Your task to perform on an android device: Look up the best rated gaming chairs on Target. Image 0: 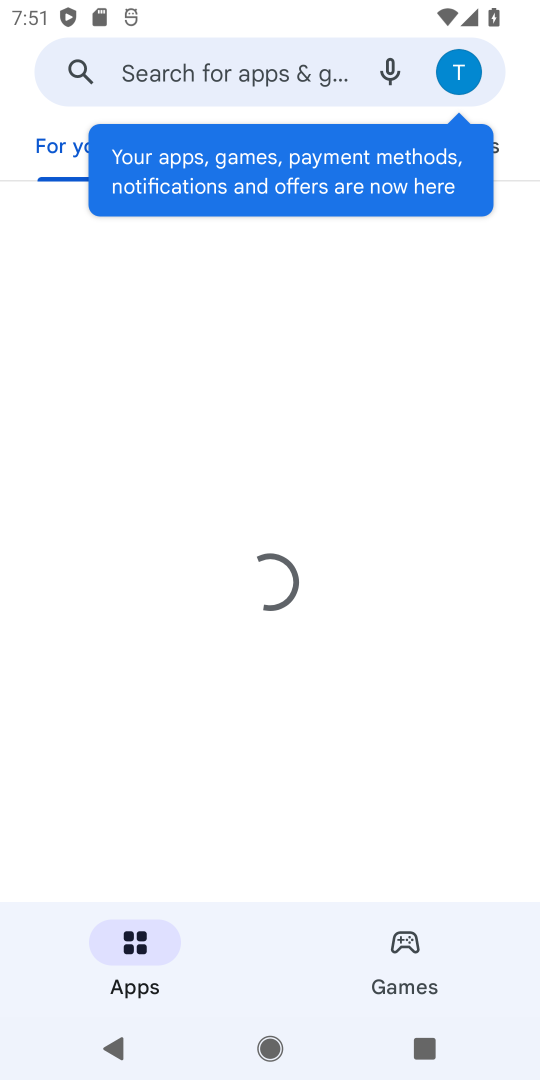
Step 0: press home button
Your task to perform on an android device: Look up the best rated gaming chairs on Target. Image 1: 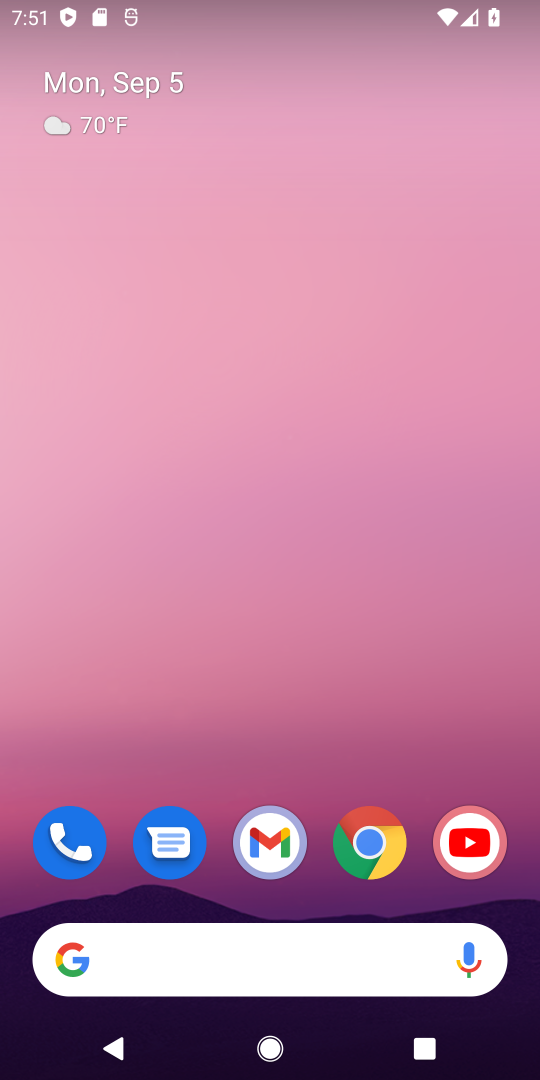
Step 1: click (369, 841)
Your task to perform on an android device: Look up the best rated gaming chairs on Target. Image 2: 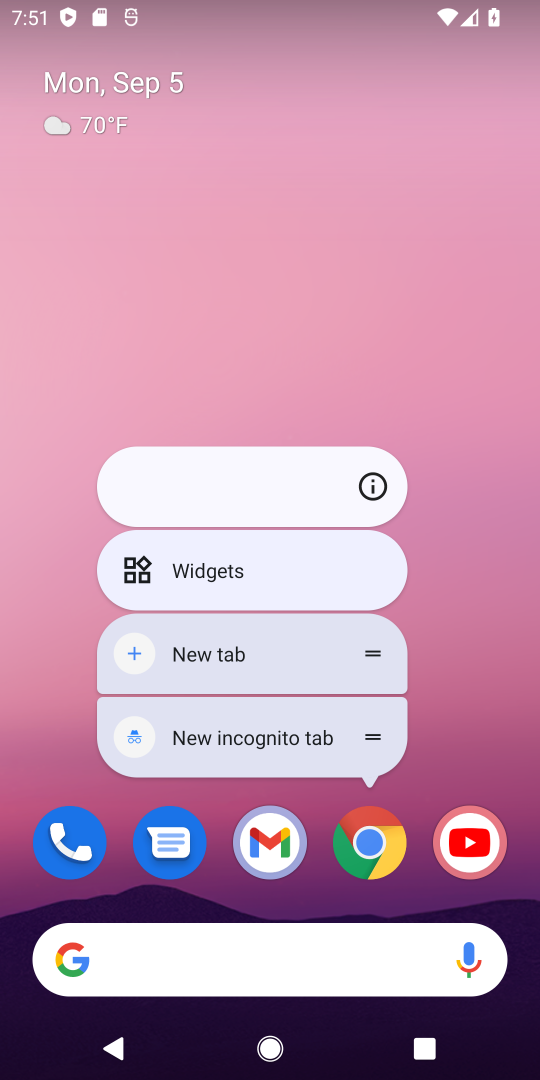
Step 2: click (369, 841)
Your task to perform on an android device: Look up the best rated gaming chairs on Target. Image 3: 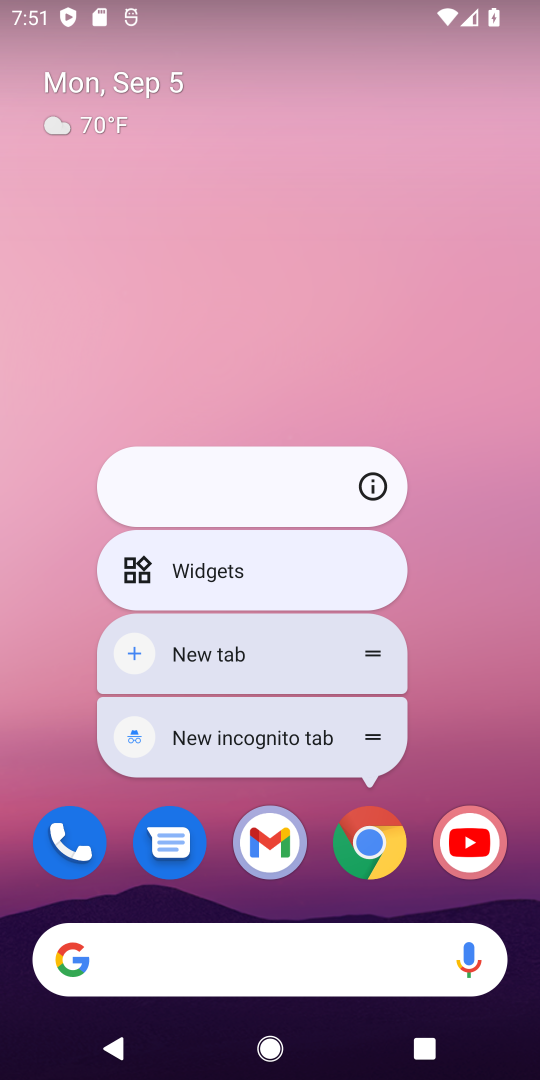
Step 3: click (371, 847)
Your task to perform on an android device: Look up the best rated gaming chairs on Target. Image 4: 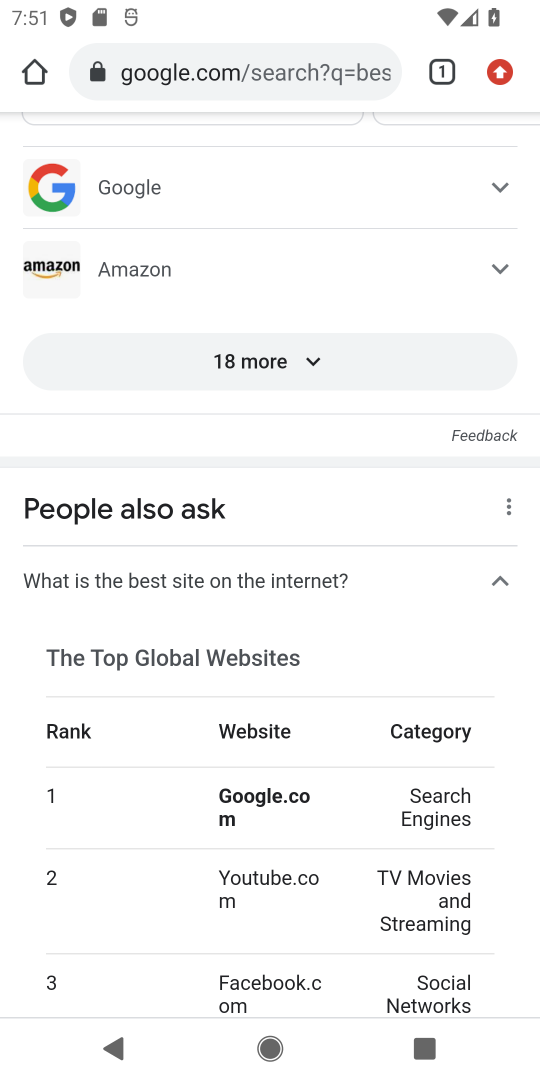
Step 4: click (282, 71)
Your task to perform on an android device: Look up the best rated gaming chairs on Target. Image 5: 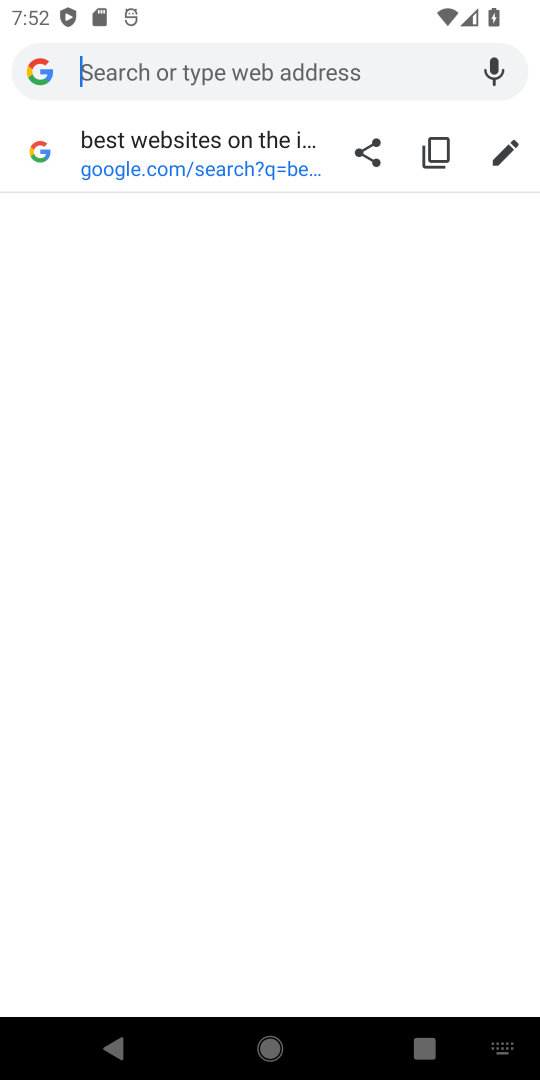
Step 5: type "Target"
Your task to perform on an android device: Look up the best rated gaming chairs on Target. Image 6: 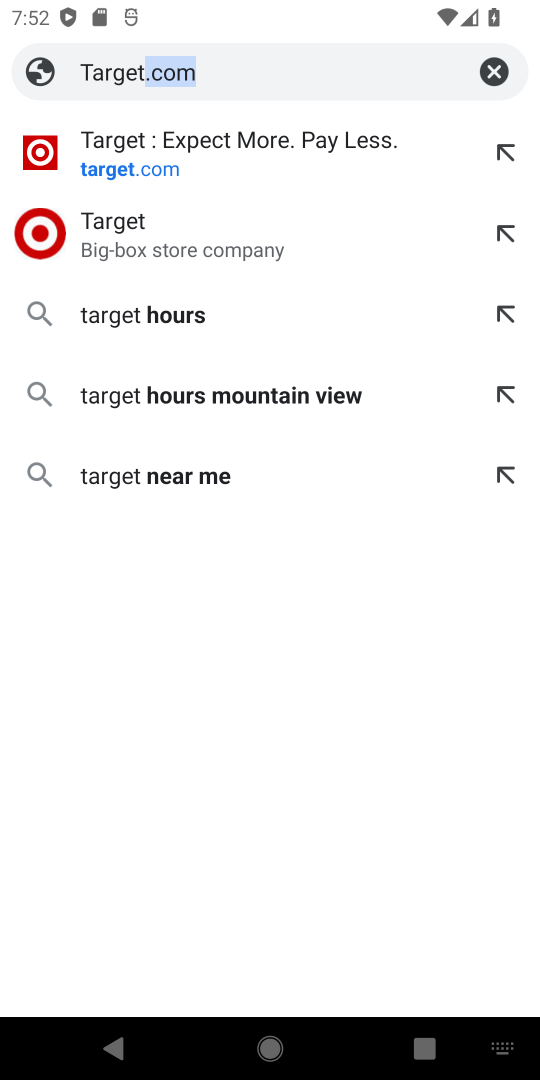
Step 6: click (193, 147)
Your task to perform on an android device: Look up the best rated gaming chairs on Target. Image 7: 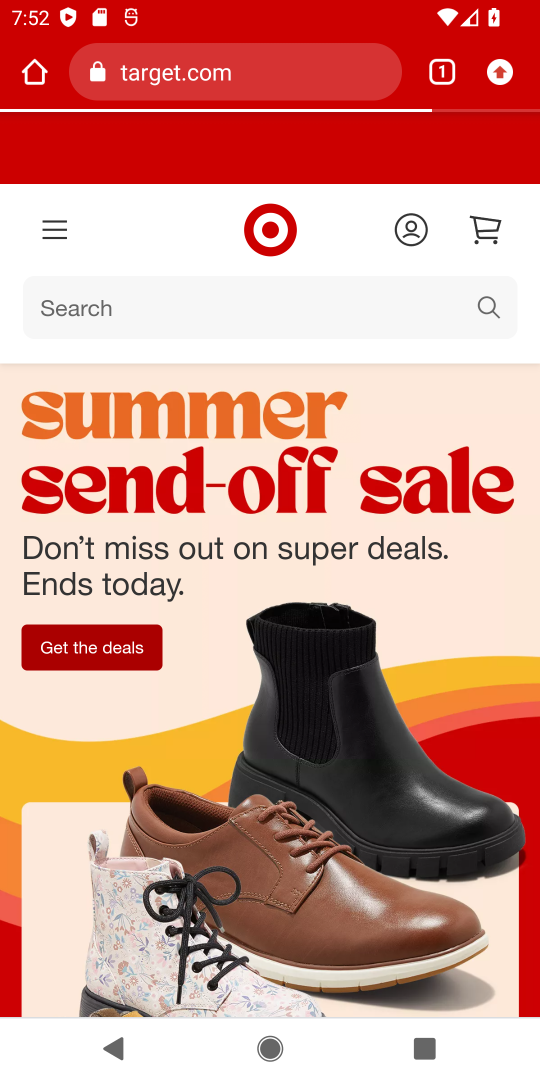
Step 7: click (206, 308)
Your task to perform on an android device: Look up the best rated gaming chairs on Target. Image 8: 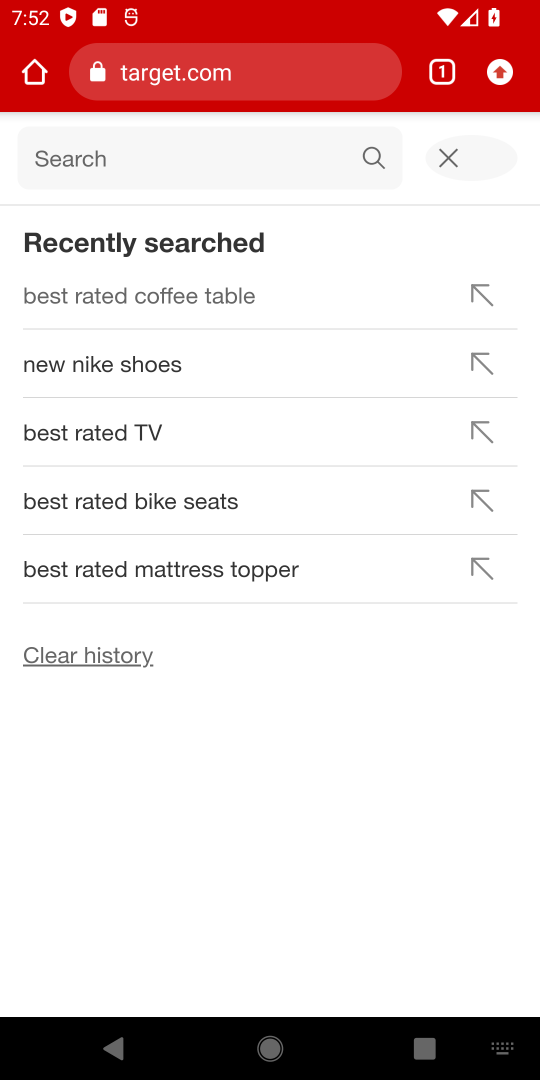
Step 8: click (194, 148)
Your task to perform on an android device: Look up the best rated gaming chairs on Target. Image 9: 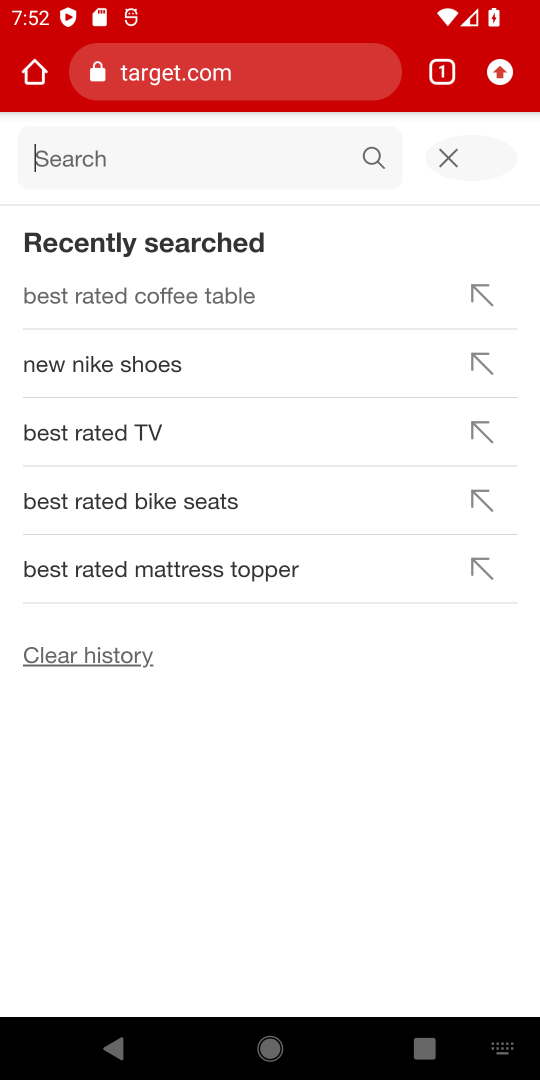
Step 9: type "best rated gaming chairs "
Your task to perform on an android device: Look up the best rated gaming chairs on Target. Image 10: 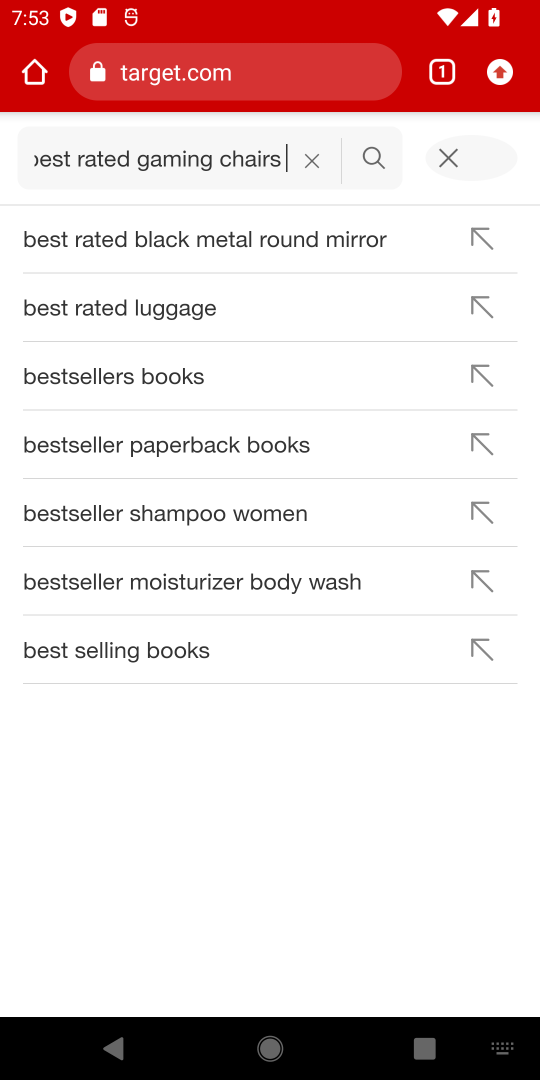
Step 10: click (377, 161)
Your task to perform on an android device: Look up the best rated gaming chairs on Target. Image 11: 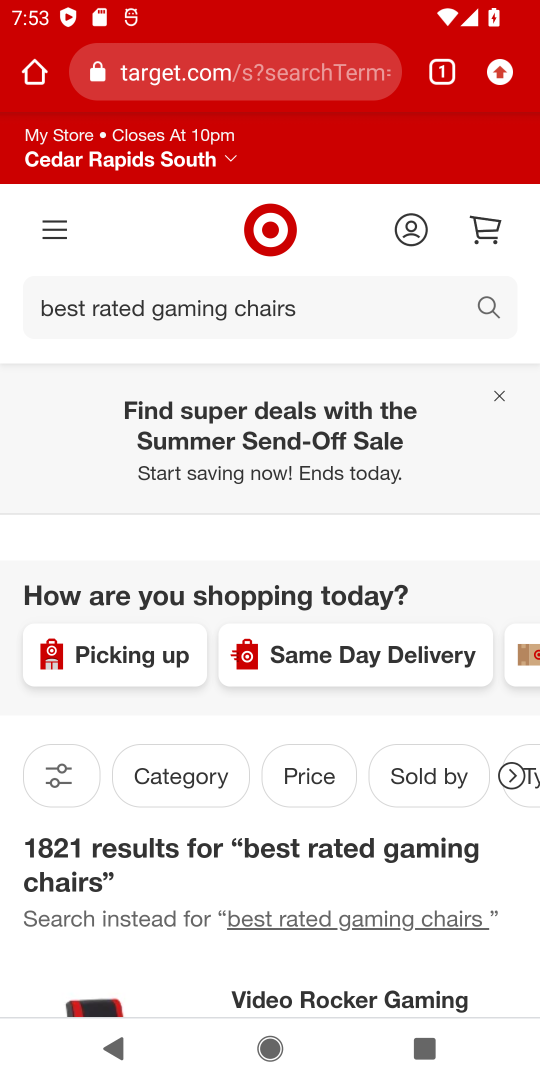
Step 11: task complete